Your task to perform on an android device: turn pop-ups on in chrome Image 0: 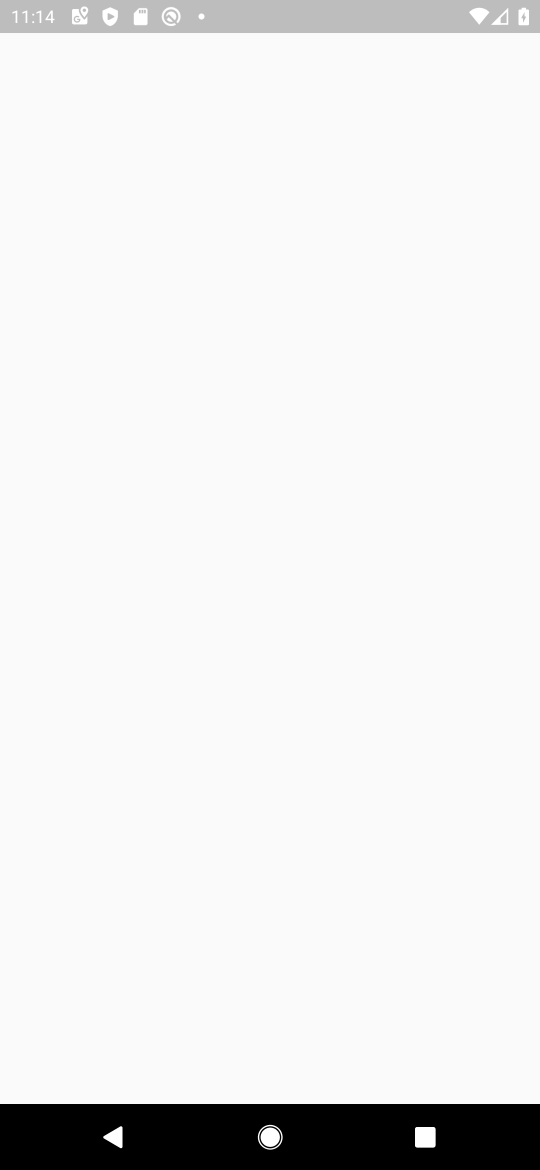
Step 0: press home button
Your task to perform on an android device: turn pop-ups on in chrome Image 1: 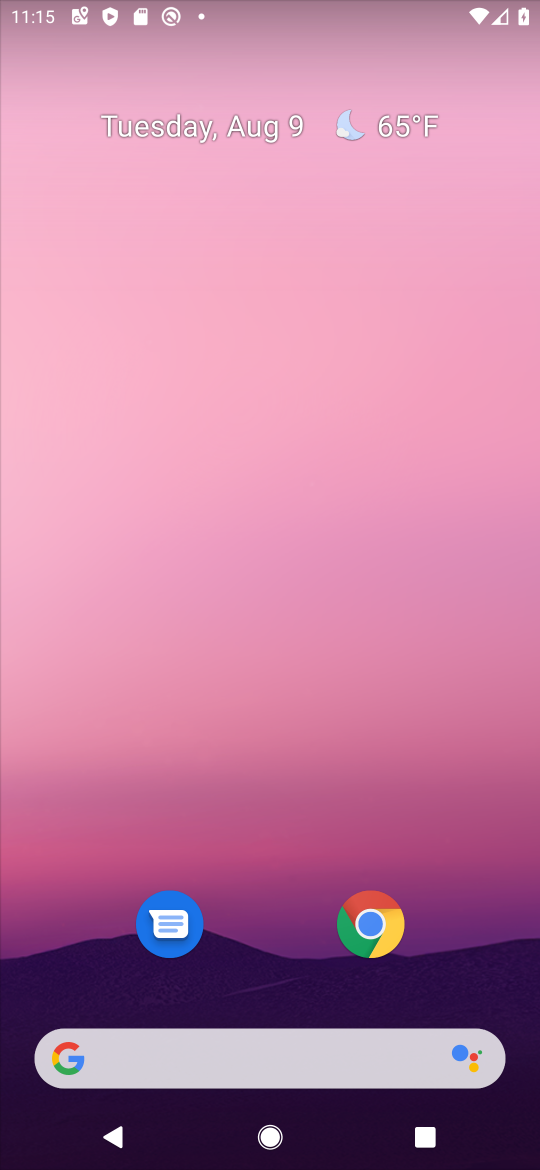
Step 1: click (385, 910)
Your task to perform on an android device: turn pop-ups on in chrome Image 2: 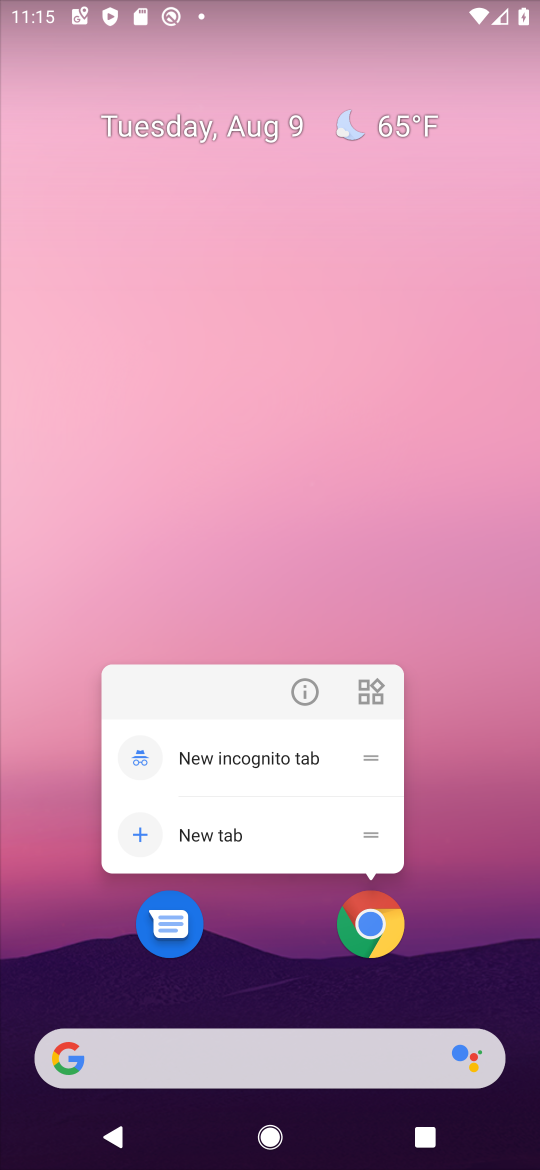
Step 2: click (375, 921)
Your task to perform on an android device: turn pop-ups on in chrome Image 3: 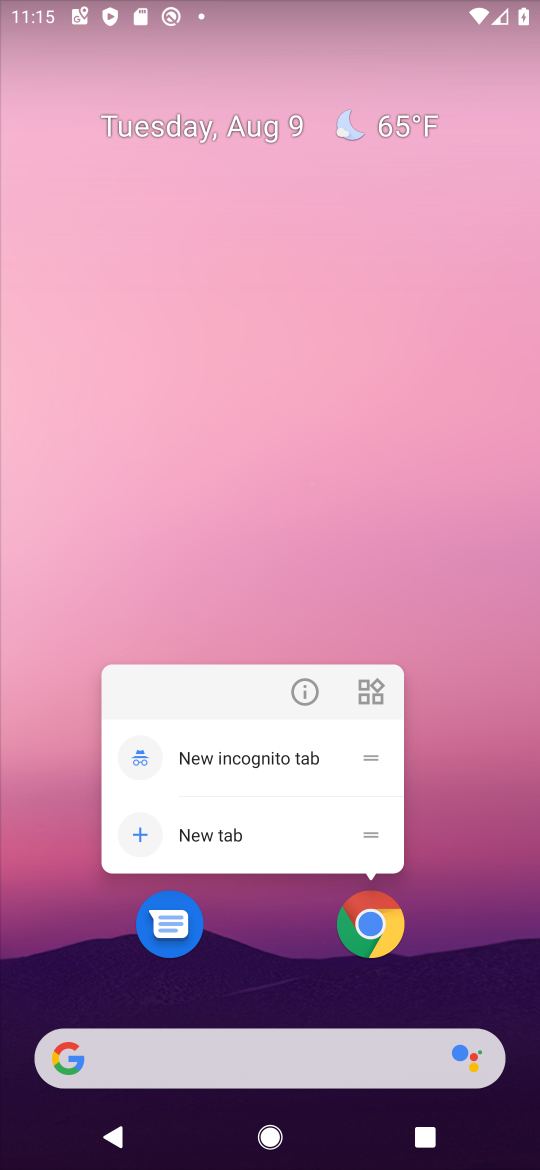
Step 3: click (267, 977)
Your task to perform on an android device: turn pop-ups on in chrome Image 4: 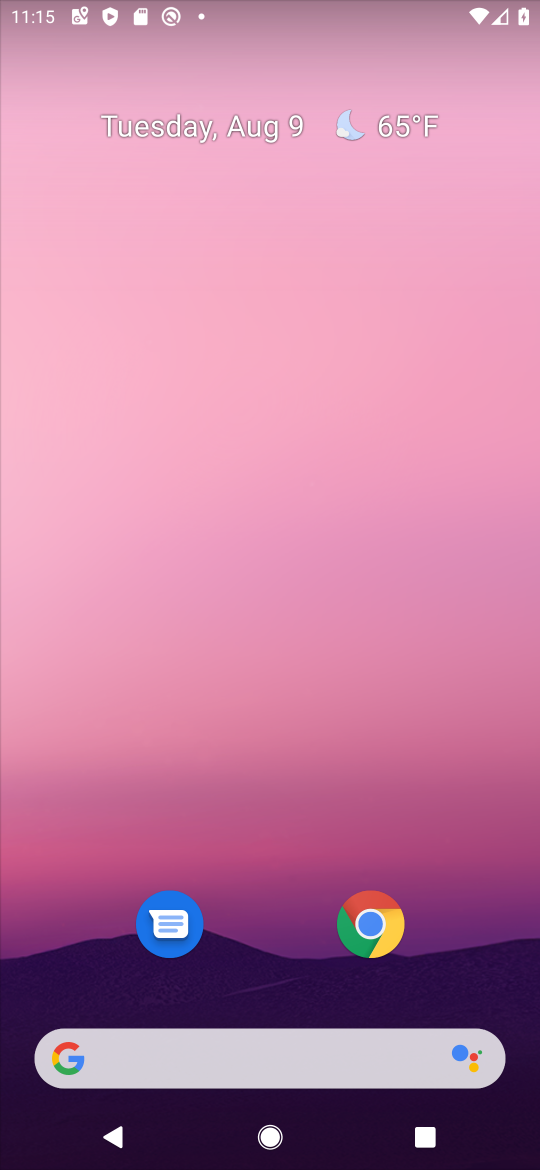
Step 4: drag from (267, 939) to (272, 83)
Your task to perform on an android device: turn pop-ups on in chrome Image 5: 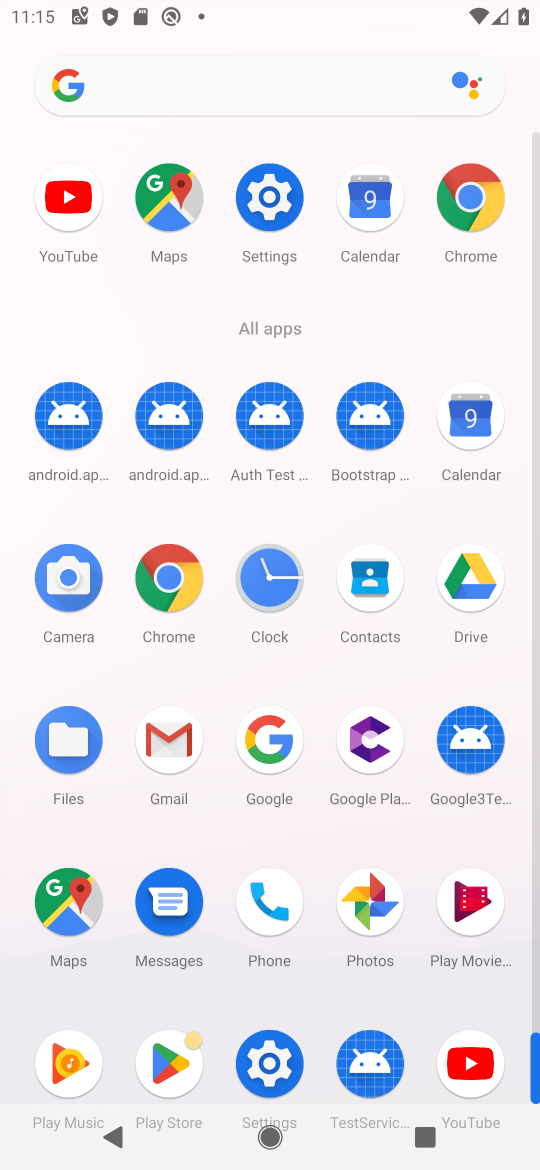
Step 5: click (174, 587)
Your task to perform on an android device: turn pop-ups on in chrome Image 6: 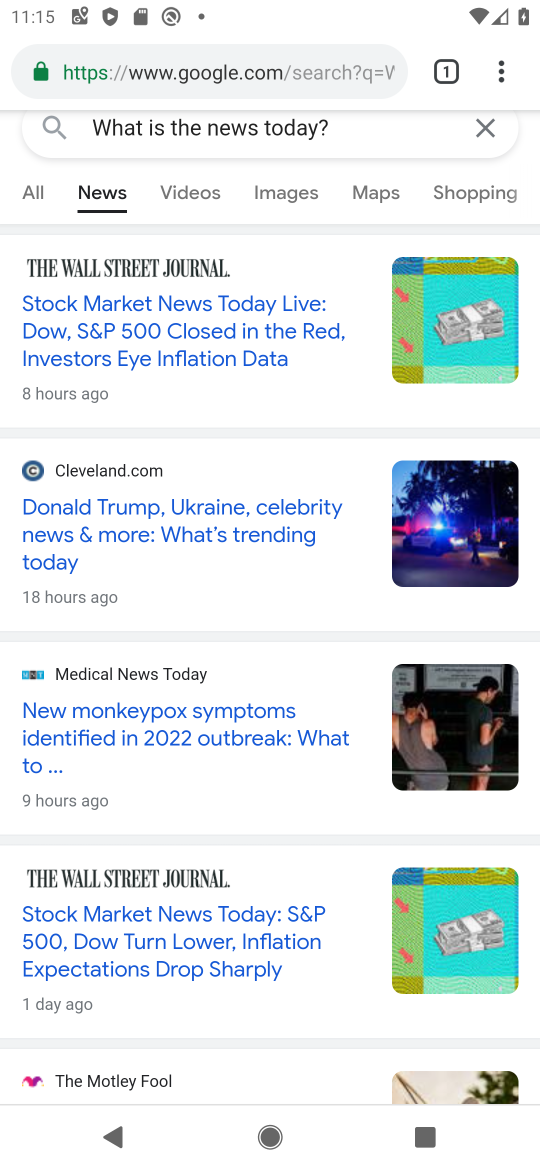
Step 6: drag from (499, 54) to (261, 802)
Your task to perform on an android device: turn pop-ups on in chrome Image 7: 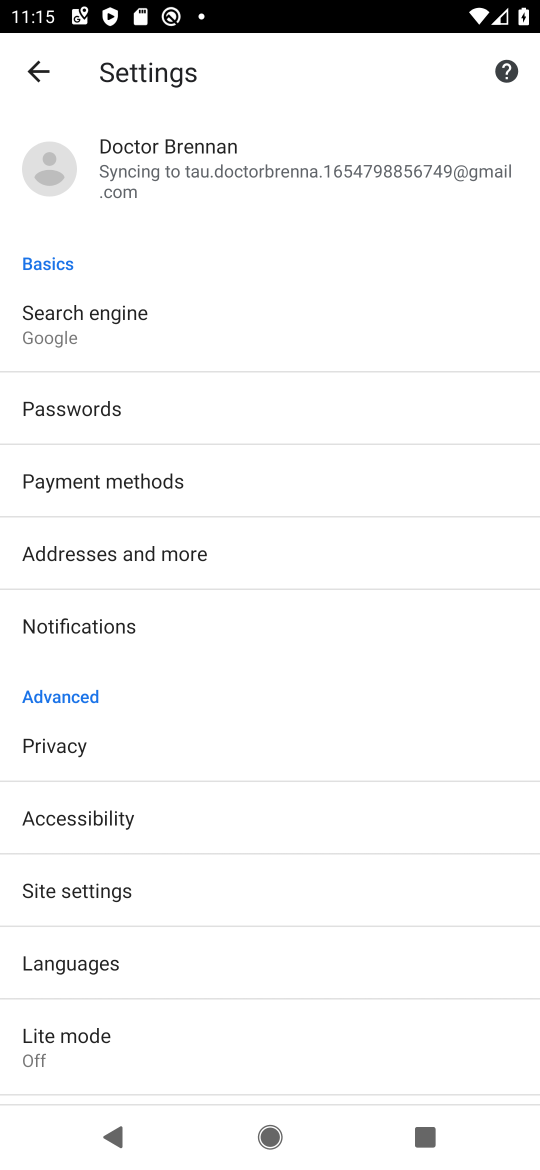
Step 7: click (72, 900)
Your task to perform on an android device: turn pop-ups on in chrome Image 8: 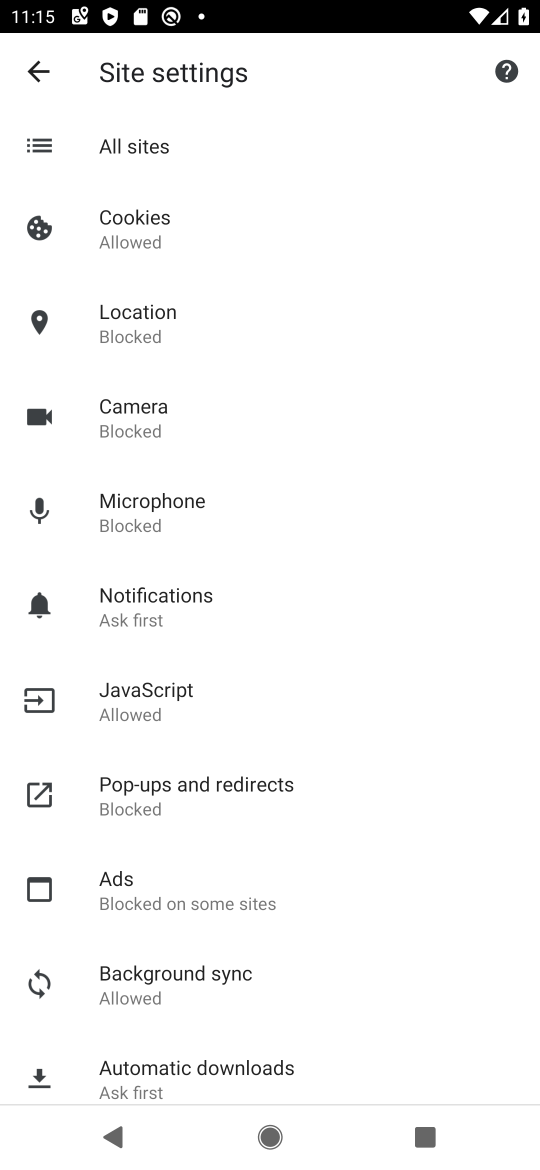
Step 8: click (143, 778)
Your task to perform on an android device: turn pop-ups on in chrome Image 9: 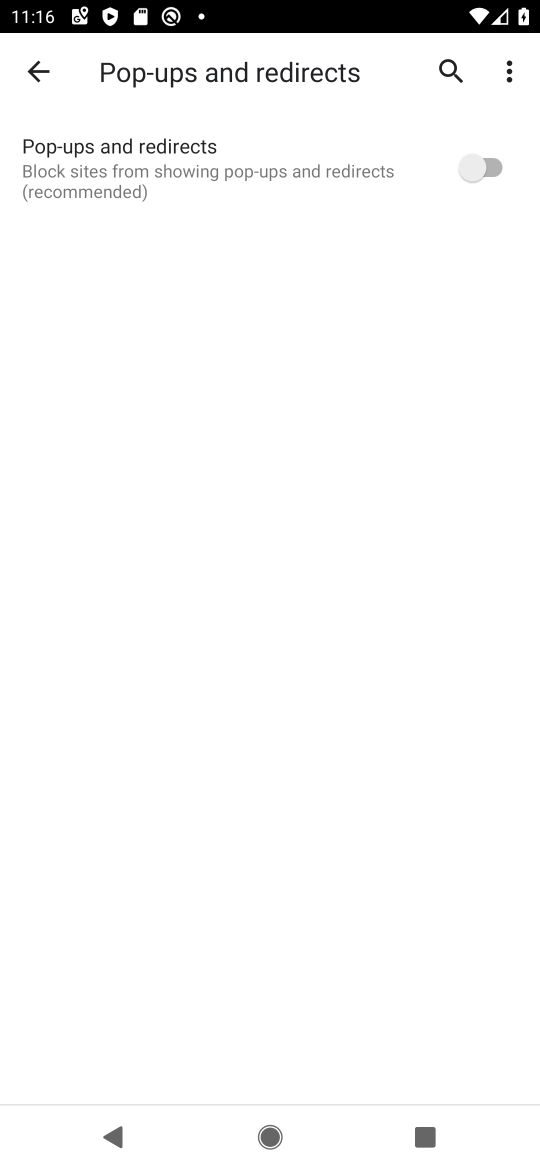
Step 9: click (265, 143)
Your task to perform on an android device: turn pop-ups on in chrome Image 10: 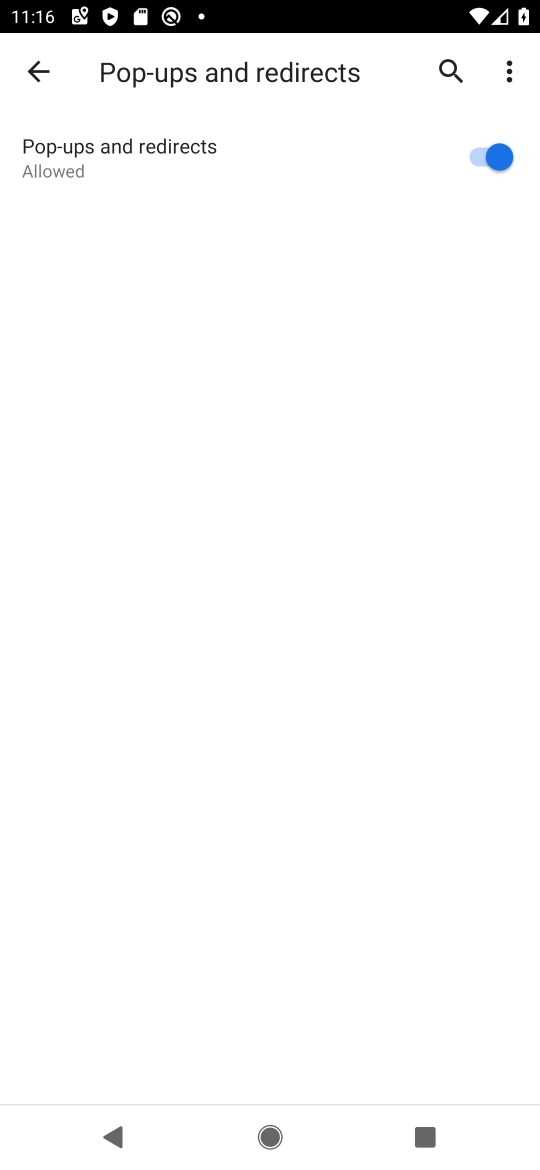
Step 10: task complete